Your task to perform on an android device: toggle priority inbox in the gmail app Image 0: 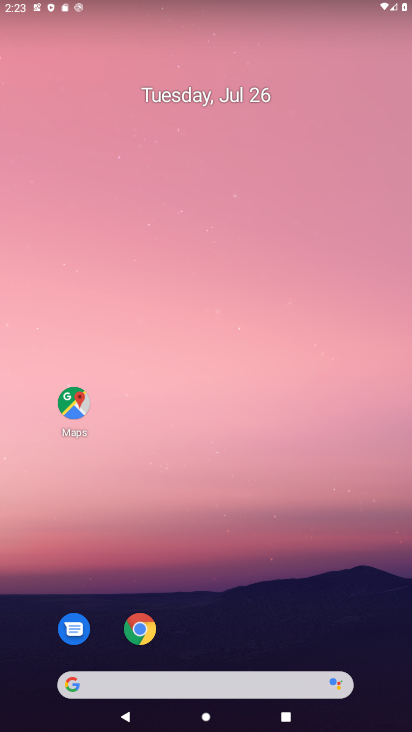
Step 0: press home button
Your task to perform on an android device: toggle priority inbox in the gmail app Image 1: 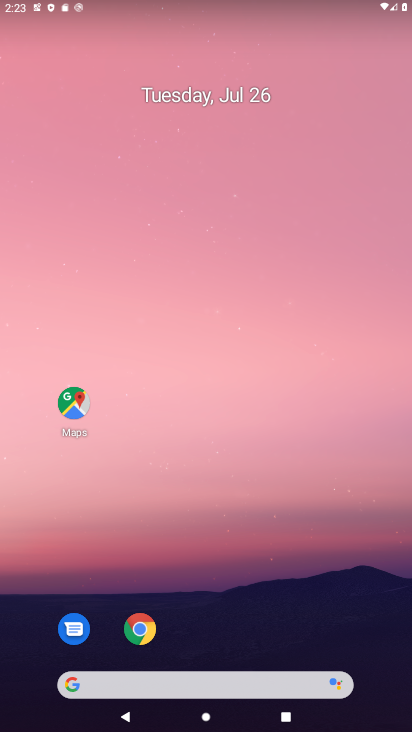
Step 1: drag from (219, 630) to (211, 171)
Your task to perform on an android device: toggle priority inbox in the gmail app Image 2: 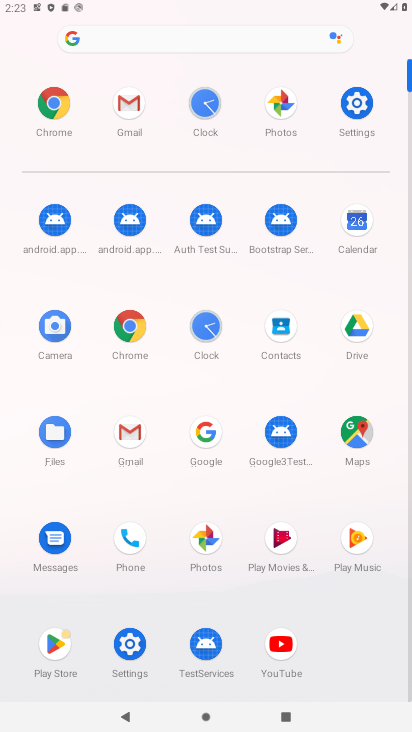
Step 2: click (131, 120)
Your task to perform on an android device: toggle priority inbox in the gmail app Image 3: 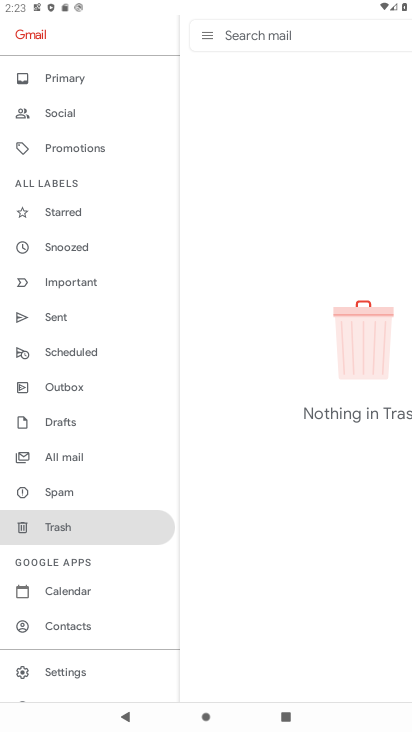
Step 3: click (84, 667)
Your task to perform on an android device: toggle priority inbox in the gmail app Image 4: 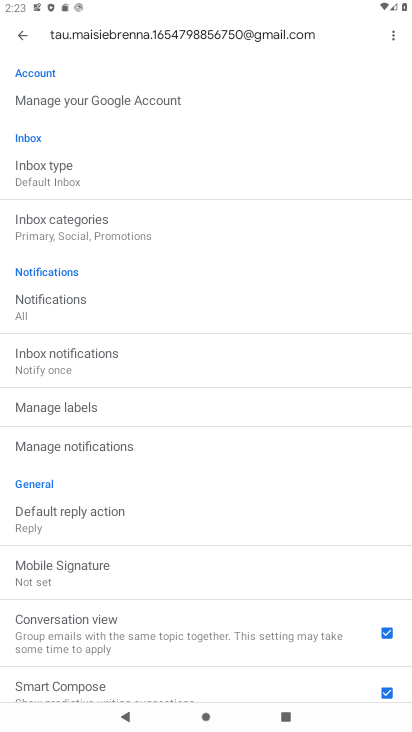
Step 4: click (63, 178)
Your task to perform on an android device: toggle priority inbox in the gmail app Image 5: 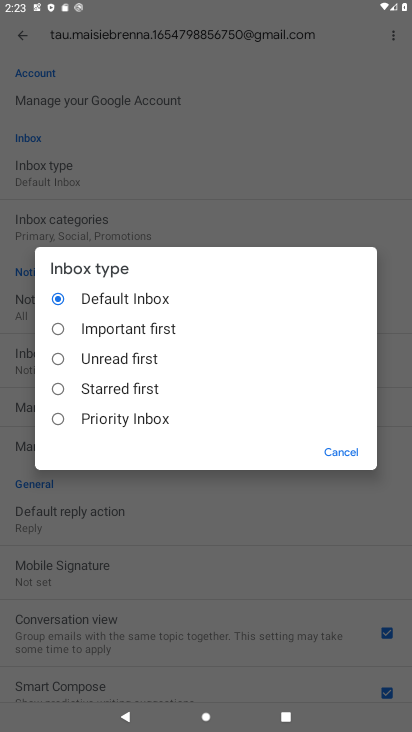
Step 5: click (148, 420)
Your task to perform on an android device: toggle priority inbox in the gmail app Image 6: 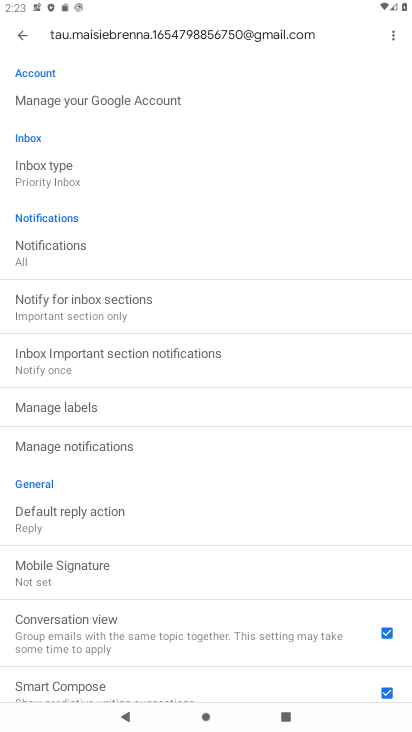
Step 6: task complete